Your task to perform on an android device: Is it going to rain tomorrow? Image 0: 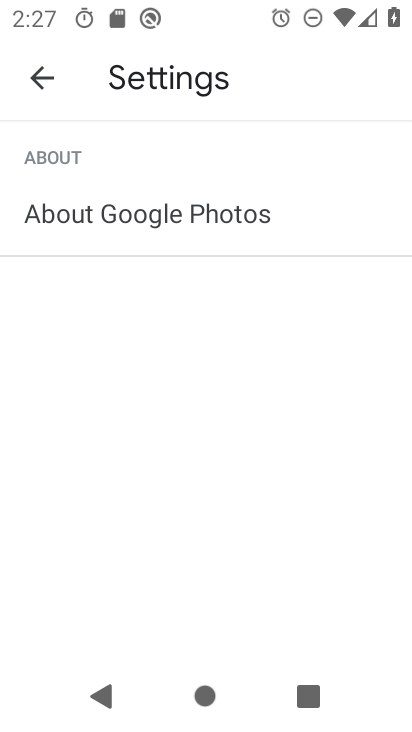
Step 0: press back button
Your task to perform on an android device: Is it going to rain tomorrow? Image 1: 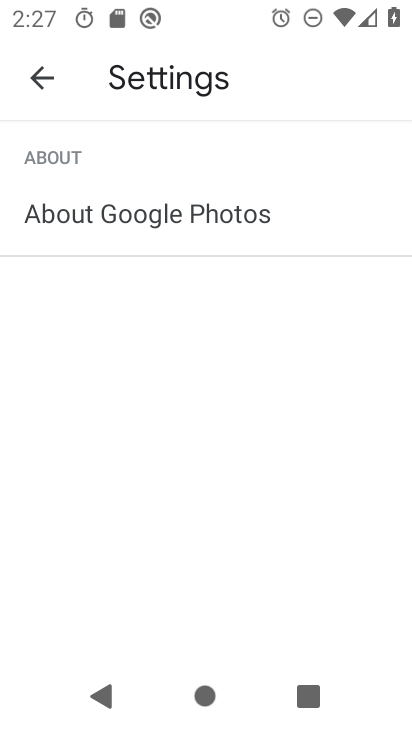
Step 1: press back button
Your task to perform on an android device: Is it going to rain tomorrow? Image 2: 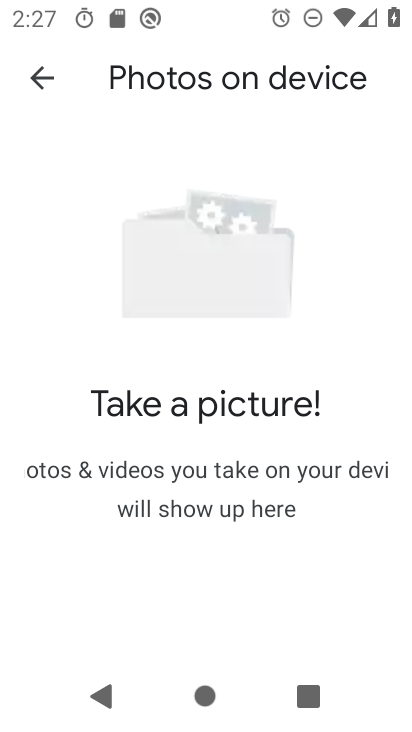
Step 2: press back button
Your task to perform on an android device: Is it going to rain tomorrow? Image 3: 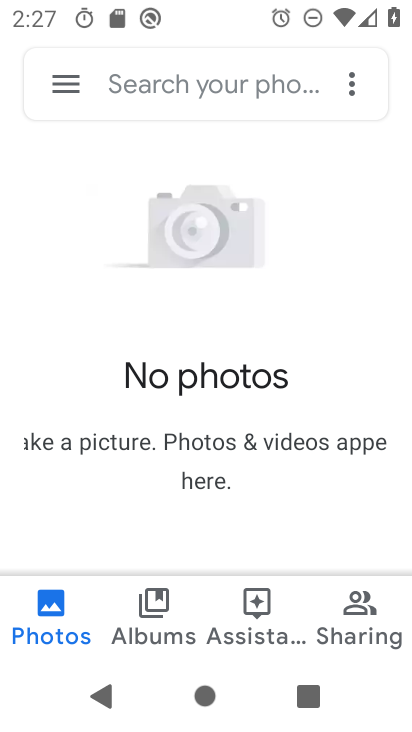
Step 3: press back button
Your task to perform on an android device: Is it going to rain tomorrow? Image 4: 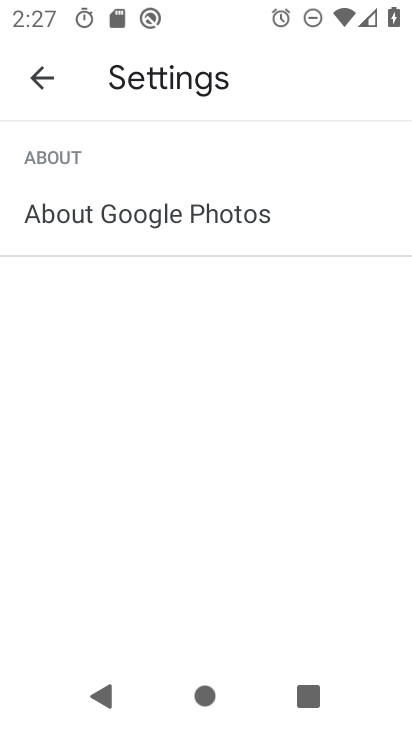
Step 4: press back button
Your task to perform on an android device: Is it going to rain tomorrow? Image 5: 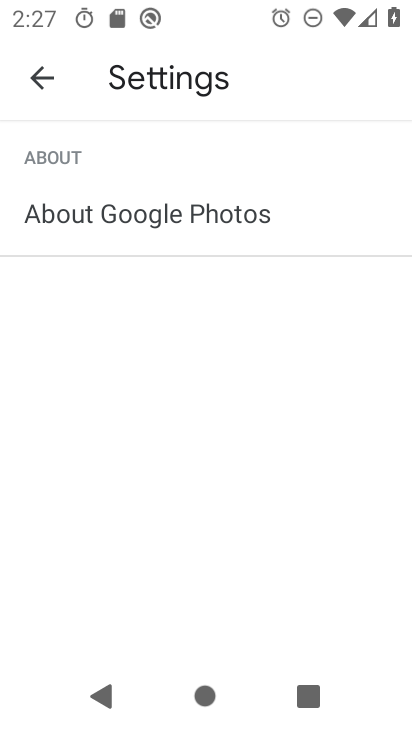
Step 5: press back button
Your task to perform on an android device: Is it going to rain tomorrow? Image 6: 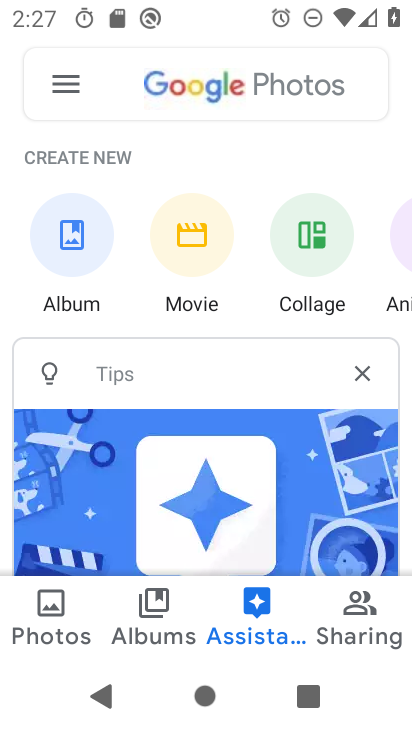
Step 6: press back button
Your task to perform on an android device: Is it going to rain tomorrow? Image 7: 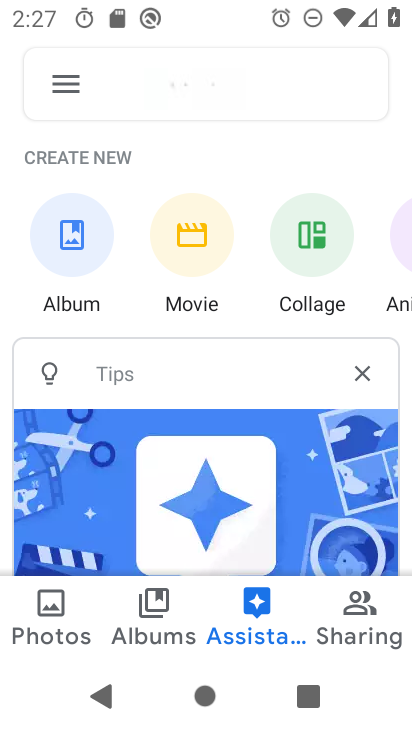
Step 7: press back button
Your task to perform on an android device: Is it going to rain tomorrow? Image 8: 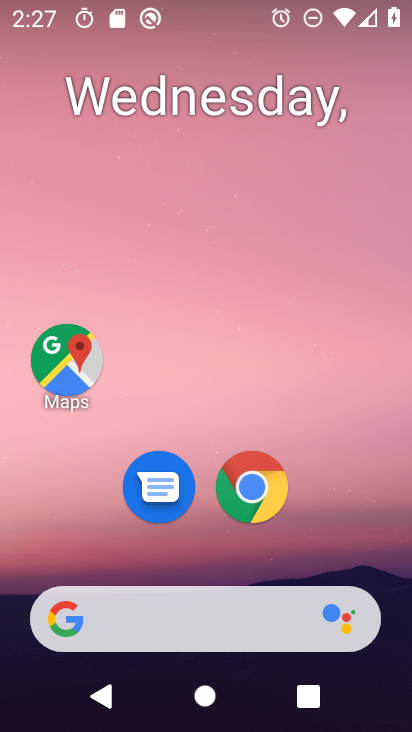
Step 8: click (154, 614)
Your task to perform on an android device: Is it going to rain tomorrow? Image 9: 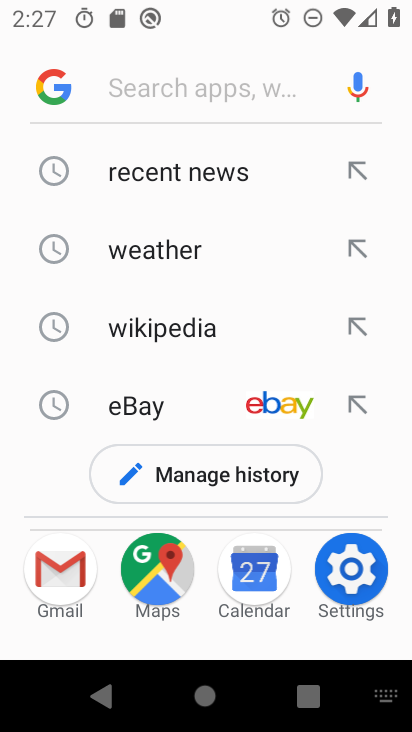
Step 9: click (154, 248)
Your task to perform on an android device: Is it going to rain tomorrow? Image 10: 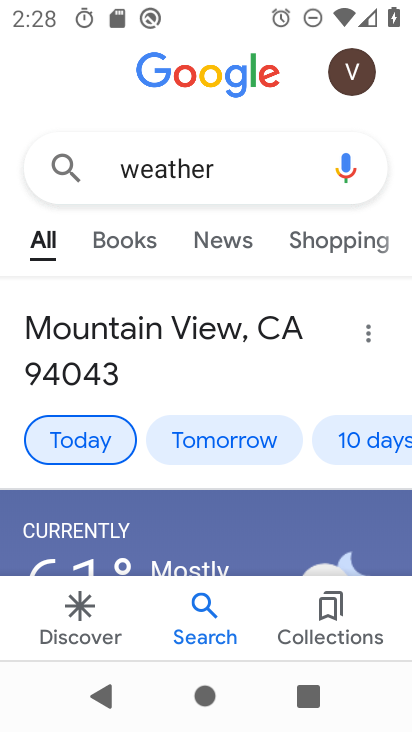
Step 10: click (205, 430)
Your task to perform on an android device: Is it going to rain tomorrow? Image 11: 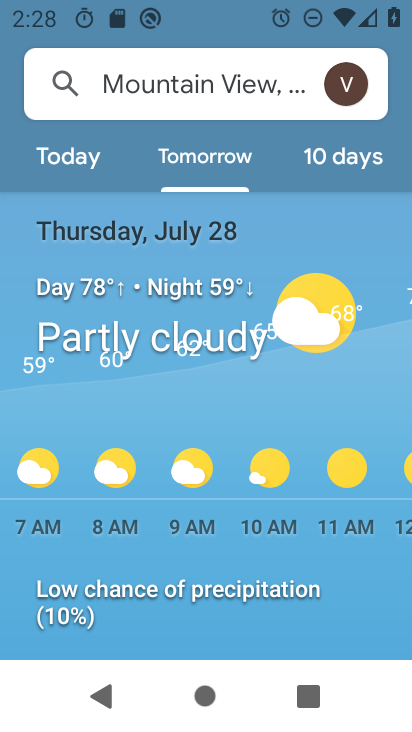
Step 11: task complete